Your task to perform on an android device: Open Reddit.com Image 0: 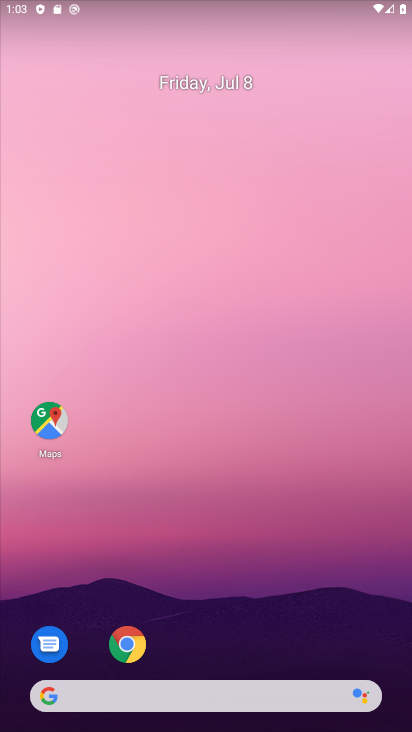
Step 0: type "Reddit.com"
Your task to perform on an android device: Open Reddit.com Image 1: 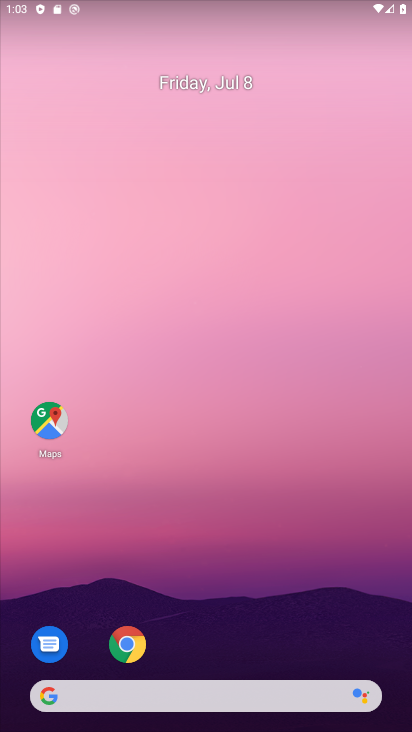
Step 1: click (160, 688)
Your task to perform on an android device: Open Reddit.com Image 2: 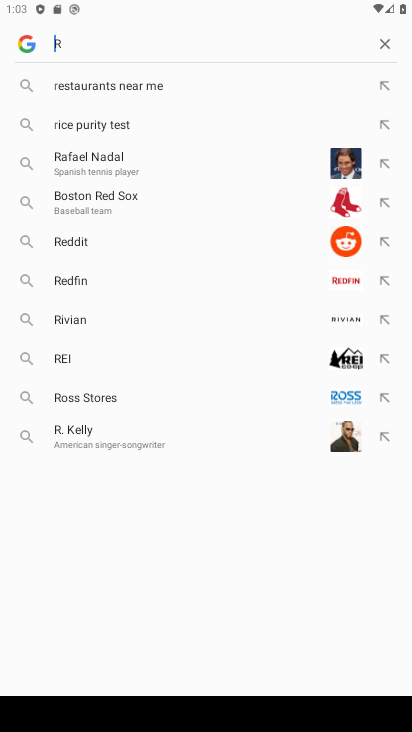
Step 2: click (57, 238)
Your task to perform on an android device: Open Reddit.com Image 3: 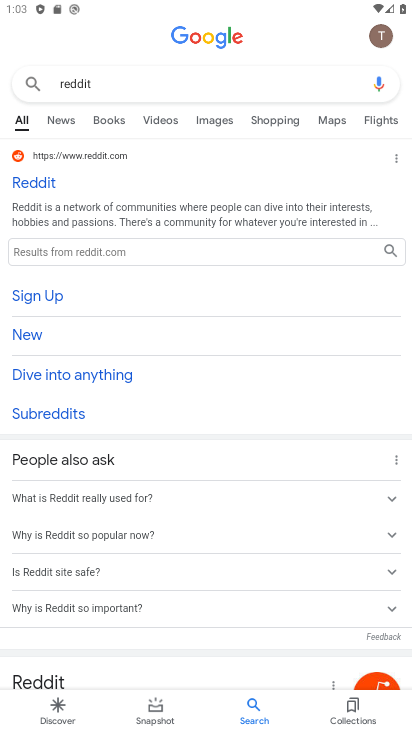
Step 3: click (21, 185)
Your task to perform on an android device: Open Reddit.com Image 4: 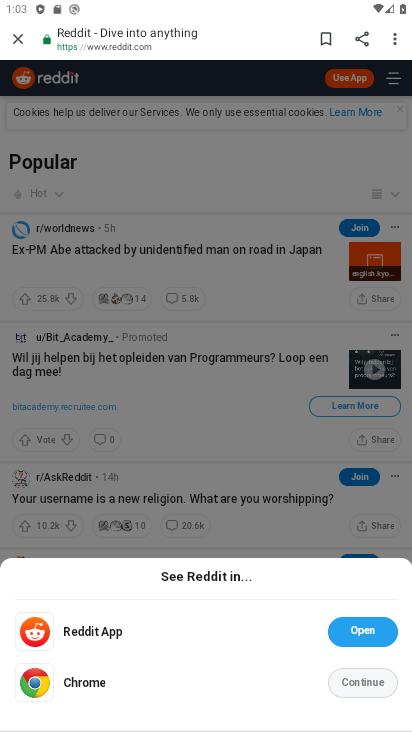
Step 4: task complete